Your task to perform on an android device: Open Reddit.com Image 0: 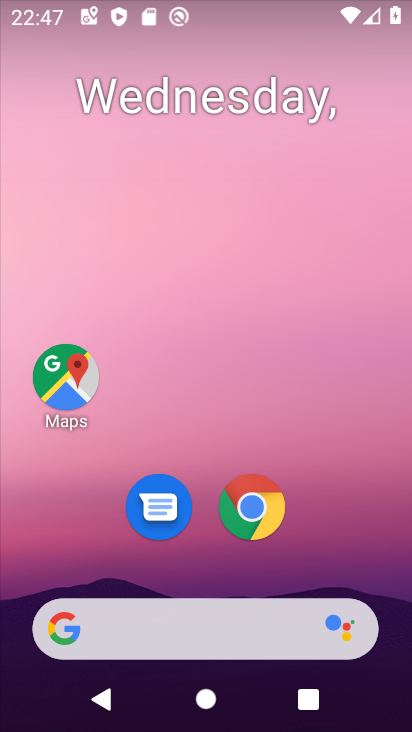
Step 0: click (251, 493)
Your task to perform on an android device: Open Reddit.com Image 1: 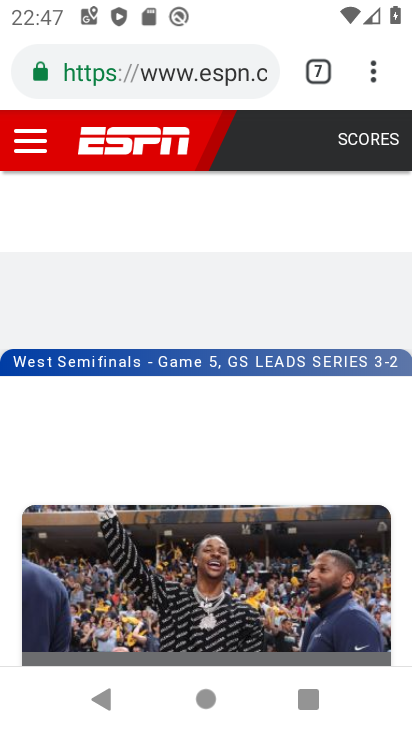
Step 1: click (343, 66)
Your task to perform on an android device: Open Reddit.com Image 2: 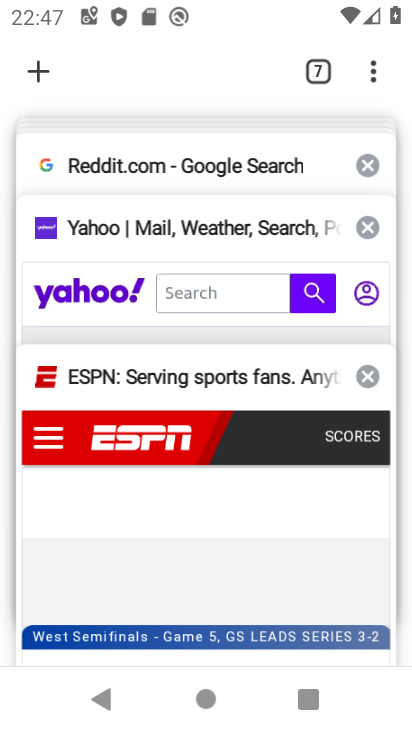
Step 2: click (184, 173)
Your task to perform on an android device: Open Reddit.com Image 3: 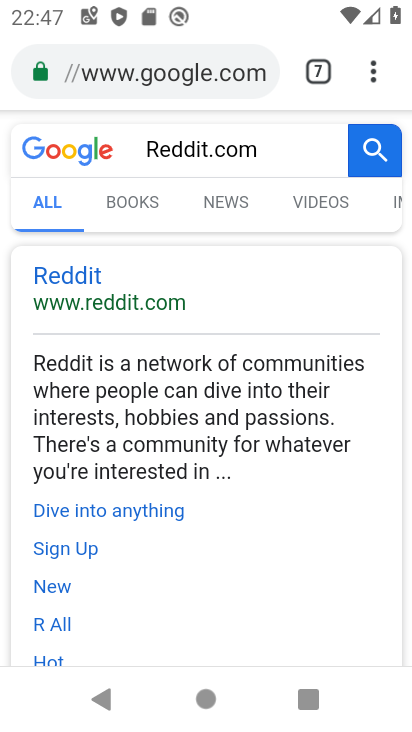
Step 3: task complete